Your task to perform on an android device: Open settings Image 0: 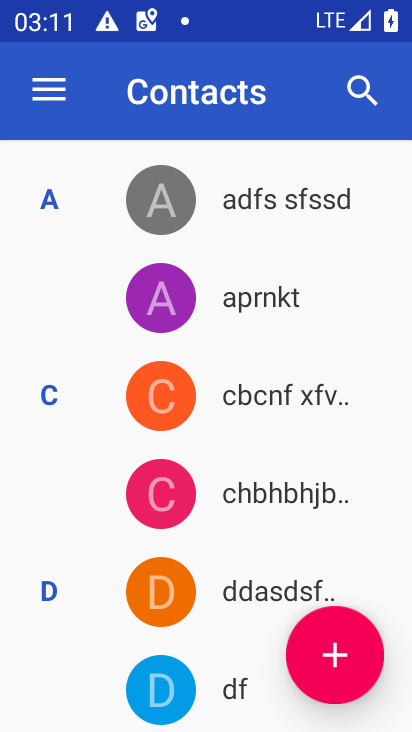
Step 0: press home button
Your task to perform on an android device: Open settings Image 1: 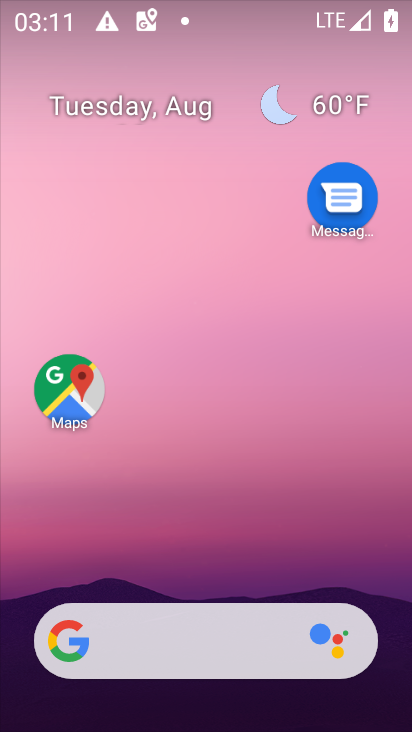
Step 1: drag from (197, 587) to (245, 90)
Your task to perform on an android device: Open settings Image 2: 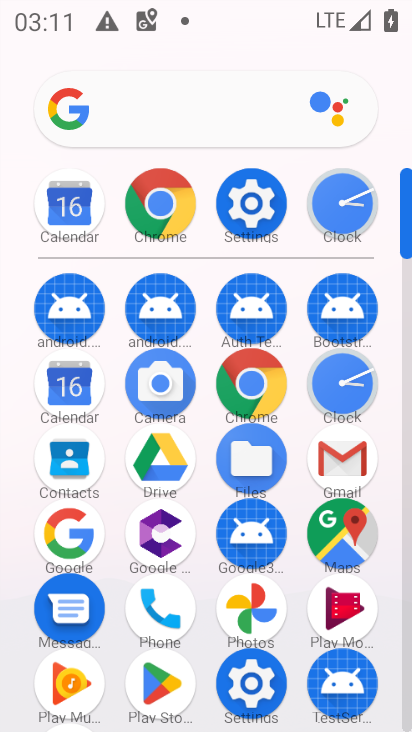
Step 2: click (265, 198)
Your task to perform on an android device: Open settings Image 3: 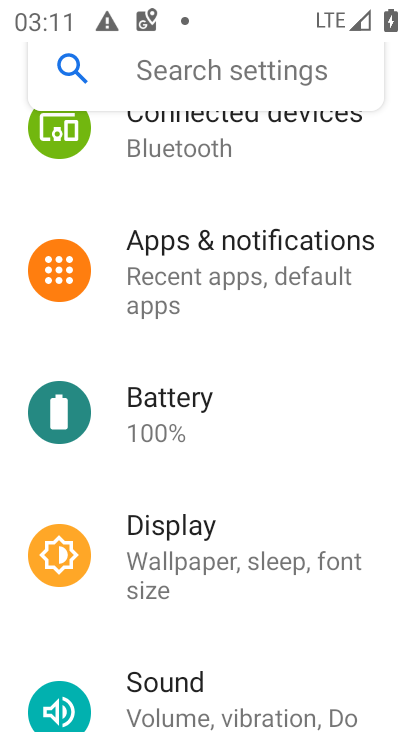
Step 3: task complete